Your task to perform on an android device: Play the last video I watched on Youtube Image 0: 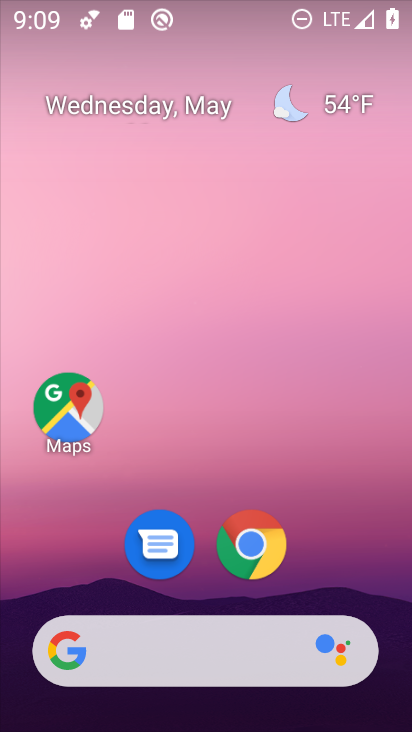
Step 0: drag from (208, 610) to (182, 0)
Your task to perform on an android device: Play the last video I watched on Youtube Image 1: 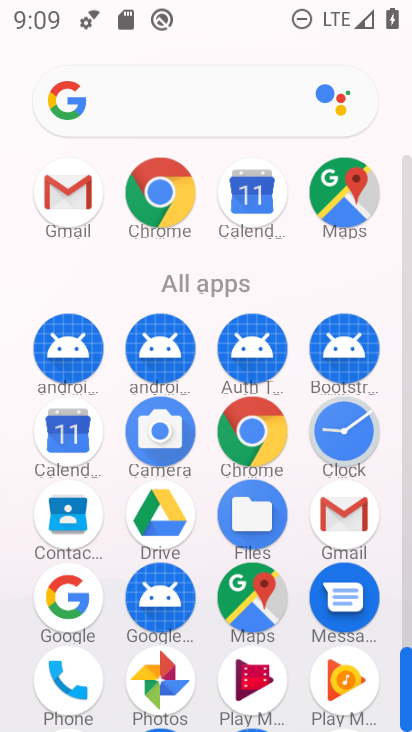
Step 1: drag from (204, 576) to (190, 140)
Your task to perform on an android device: Play the last video I watched on Youtube Image 2: 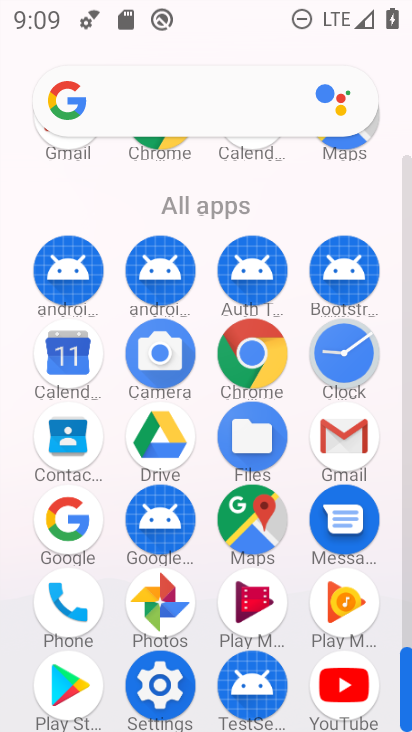
Step 2: click (190, 140)
Your task to perform on an android device: Play the last video I watched on Youtube Image 3: 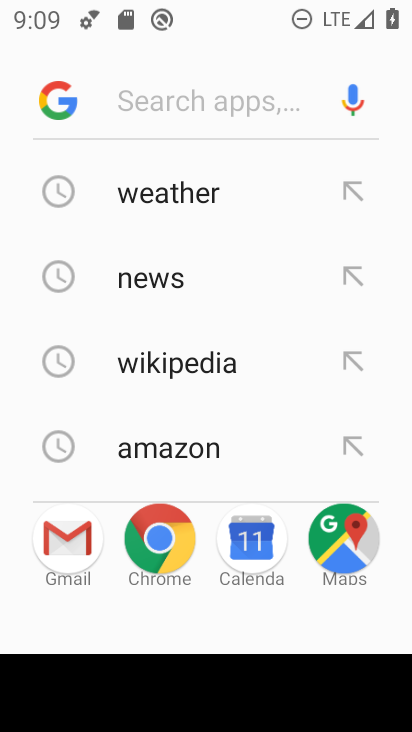
Step 3: press home button
Your task to perform on an android device: Play the last video I watched on Youtube Image 4: 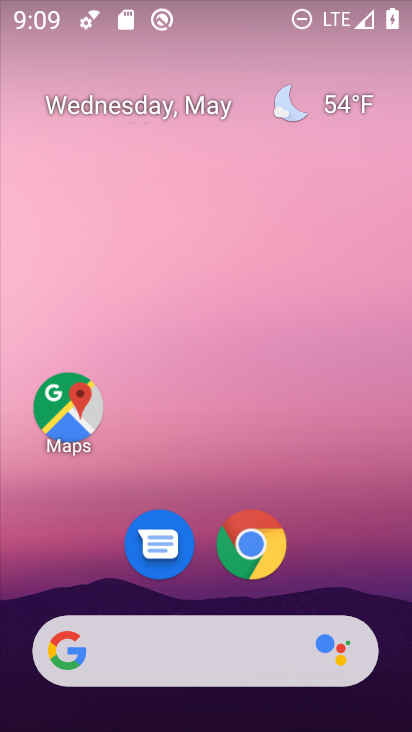
Step 4: drag from (209, 592) to (253, 21)
Your task to perform on an android device: Play the last video I watched on Youtube Image 5: 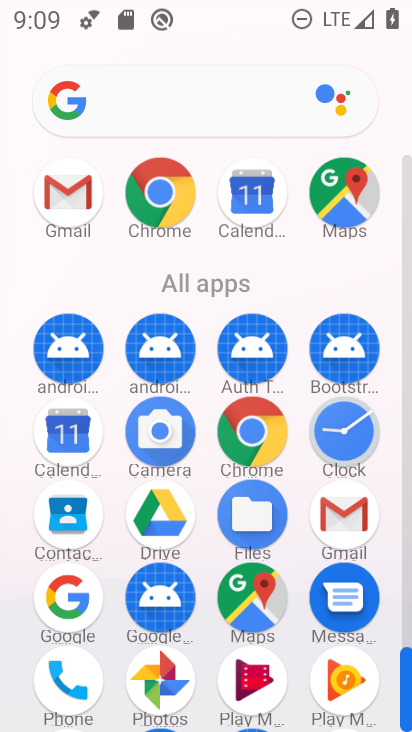
Step 5: drag from (205, 620) to (287, 8)
Your task to perform on an android device: Play the last video I watched on Youtube Image 6: 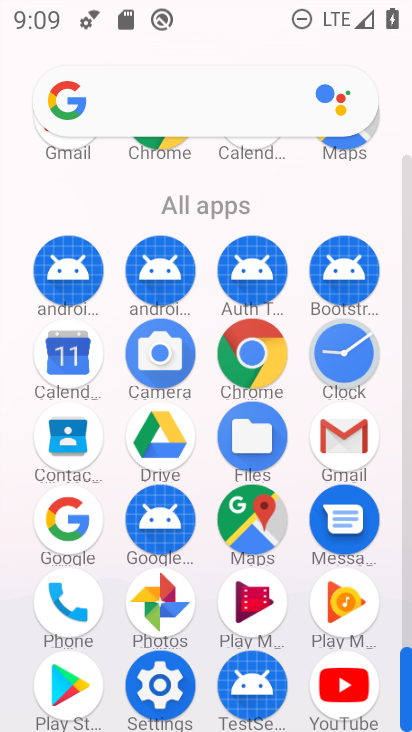
Step 6: click (359, 658)
Your task to perform on an android device: Play the last video I watched on Youtube Image 7: 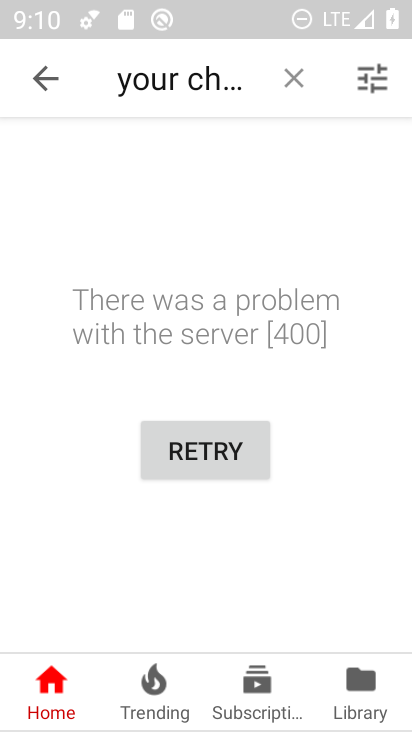
Step 7: click (358, 680)
Your task to perform on an android device: Play the last video I watched on Youtube Image 8: 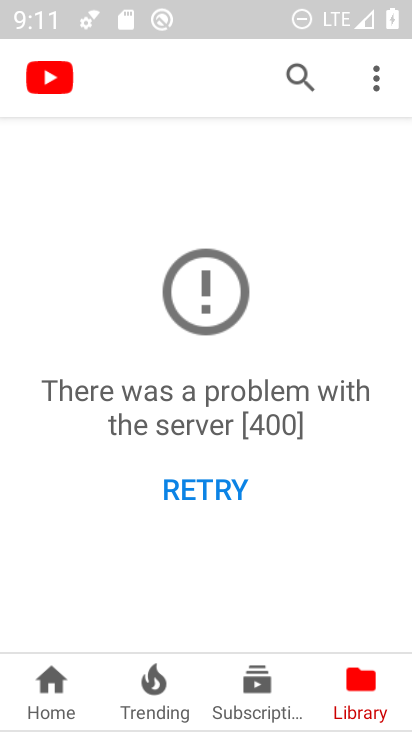
Step 8: task complete